Your task to perform on an android device: toggle notifications settings in the gmail app Image 0: 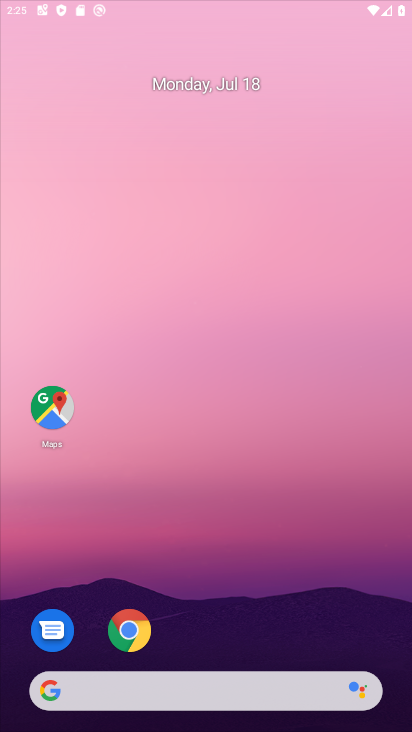
Step 0: drag from (393, 644) to (245, 2)
Your task to perform on an android device: toggle notifications settings in the gmail app Image 1: 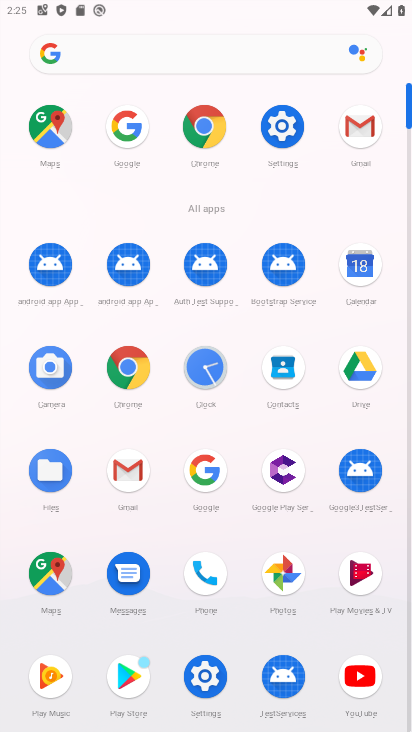
Step 1: click (145, 485)
Your task to perform on an android device: toggle notifications settings in the gmail app Image 2: 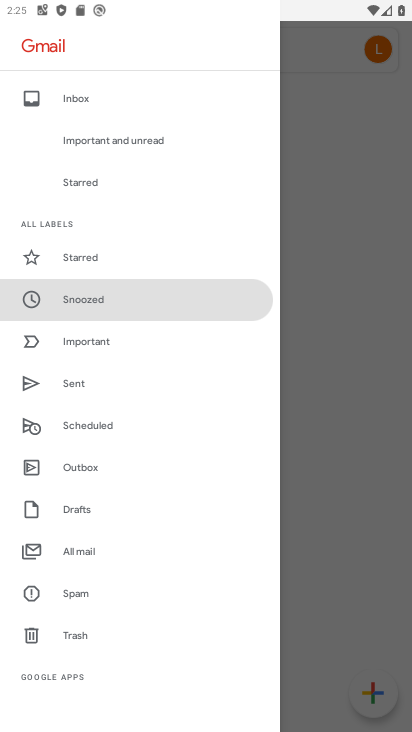
Step 2: drag from (121, 639) to (135, 77)
Your task to perform on an android device: toggle notifications settings in the gmail app Image 3: 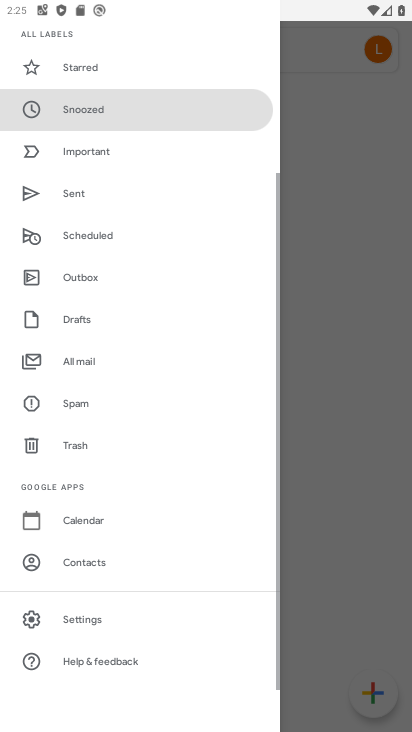
Step 3: click (76, 610)
Your task to perform on an android device: toggle notifications settings in the gmail app Image 4: 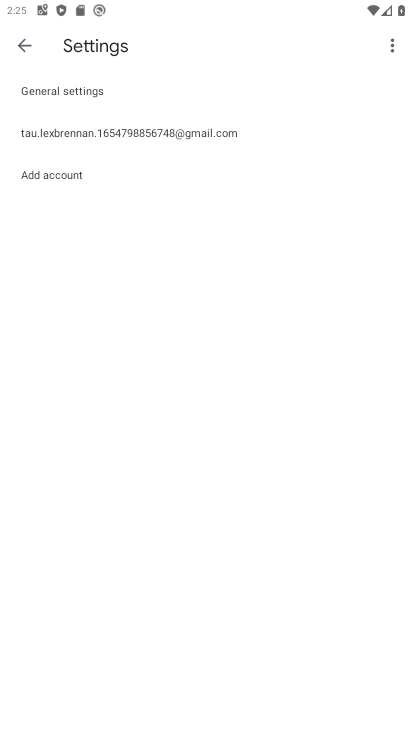
Step 4: click (55, 135)
Your task to perform on an android device: toggle notifications settings in the gmail app Image 5: 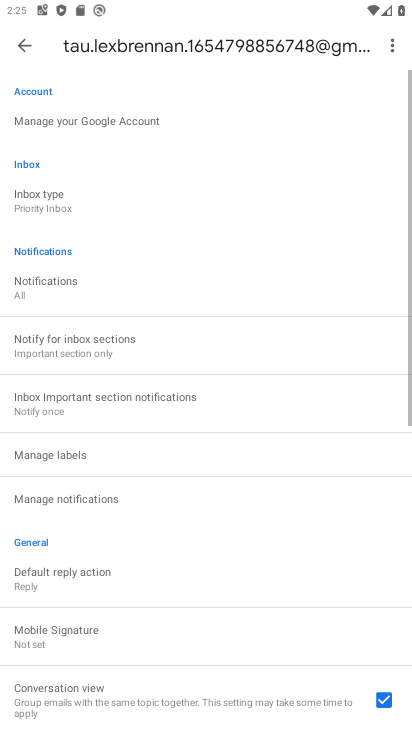
Step 5: click (51, 297)
Your task to perform on an android device: toggle notifications settings in the gmail app Image 6: 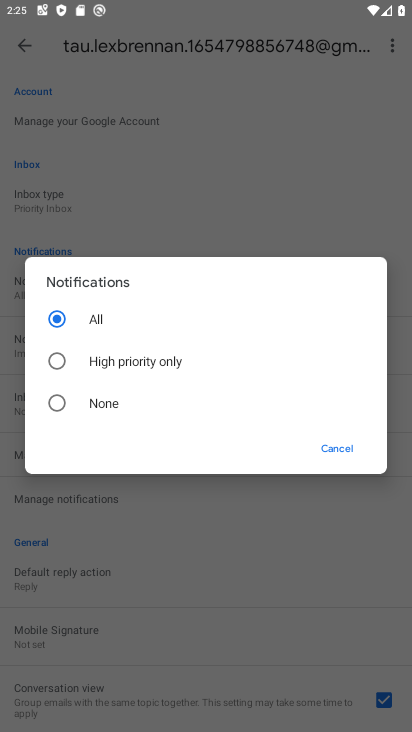
Step 6: click (87, 405)
Your task to perform on an android device: toggle notifications settings in the gmail app Image 7: 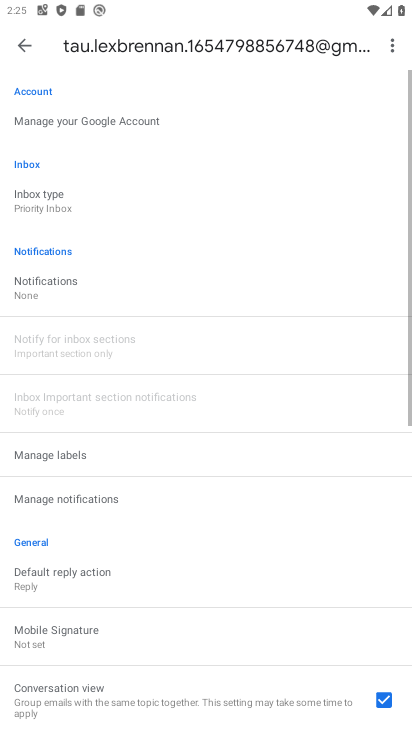
Step 7: task complete